Your task to perform on an android device: turn off location Image 0: 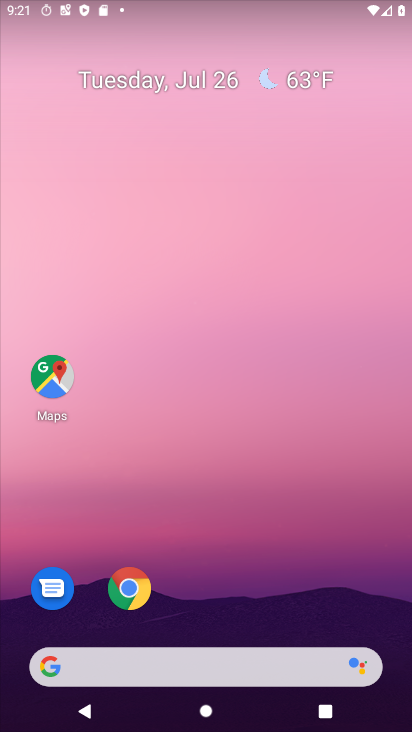
Step 0: drag from (227, 601) to (270, 75)
Your task to perform on an android device: turn off location Image 1: 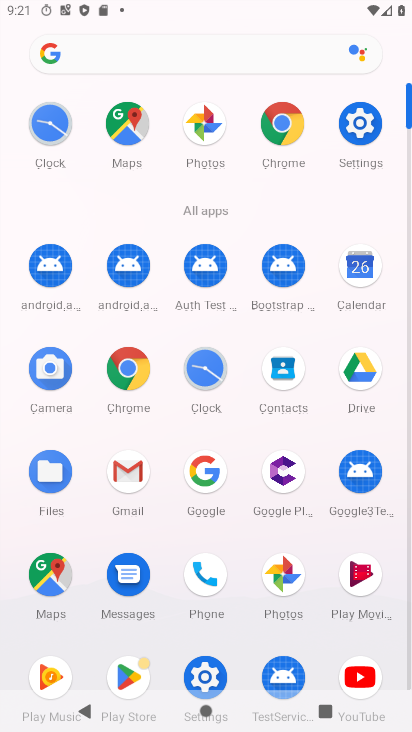
Step 1: click (350, 131)
Your task to perform on an android device: turn off location Image 2: 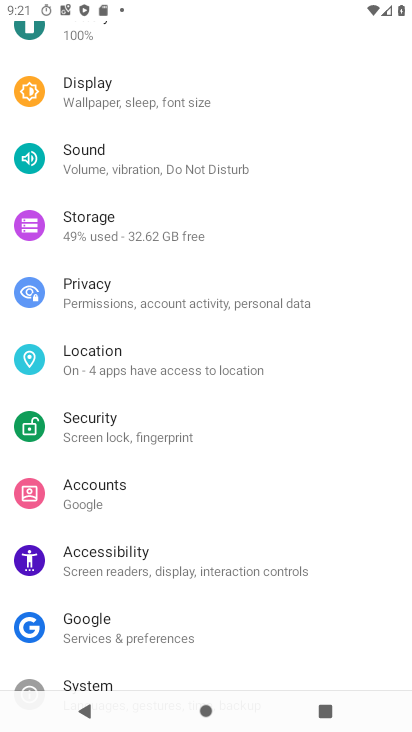
Step 2: click (114, 376)
Your task to perform on an android device: turn off location Image 3: 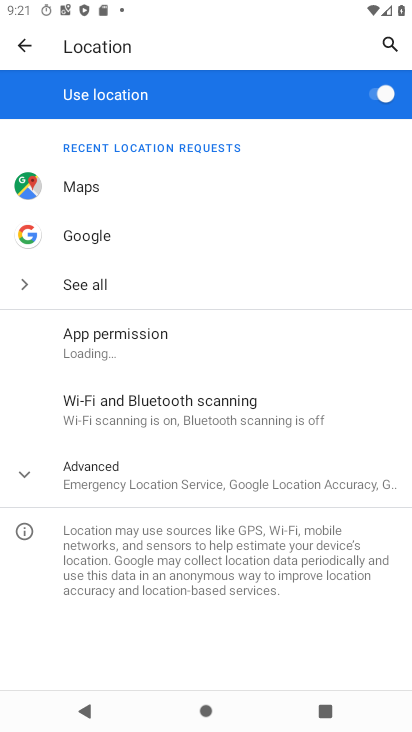
Step 3: click (386, 90)
Your task to perform on an android device: turn off location Image 4: 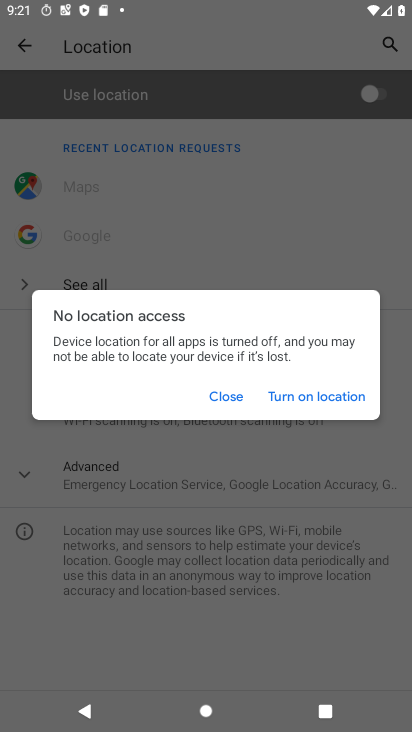
Step 4: task complete